Your task to perform on an android device: What's the weather today? Image 0: 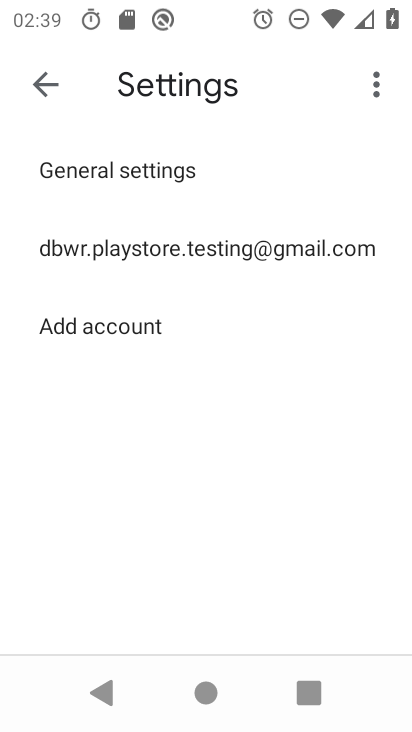
Step 0: press home button
Your task to perform on an android device: What's the weather today? Image 1: 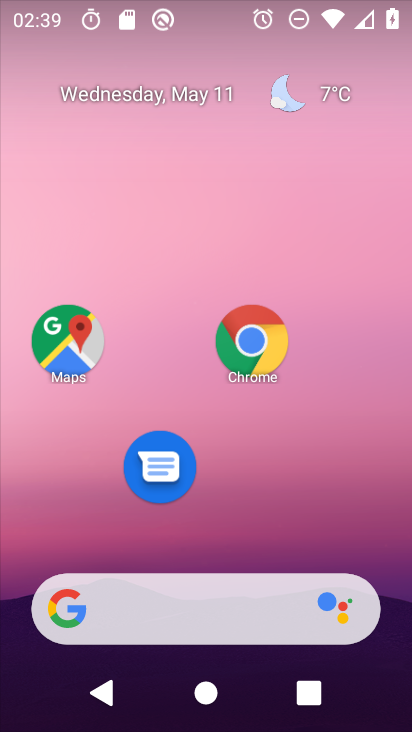
Step 1: click (330, 95)
Your task to perform on an android device: What's the weather today? Image 2: 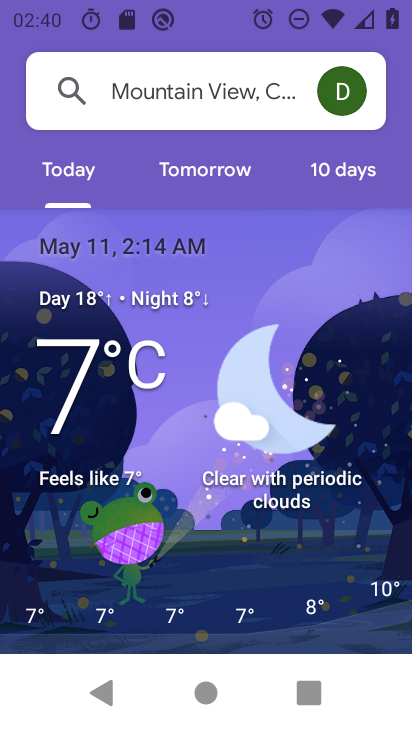
Step 2: task complete